Your task to perform on an android device: open chrome privacy settings Image 0: 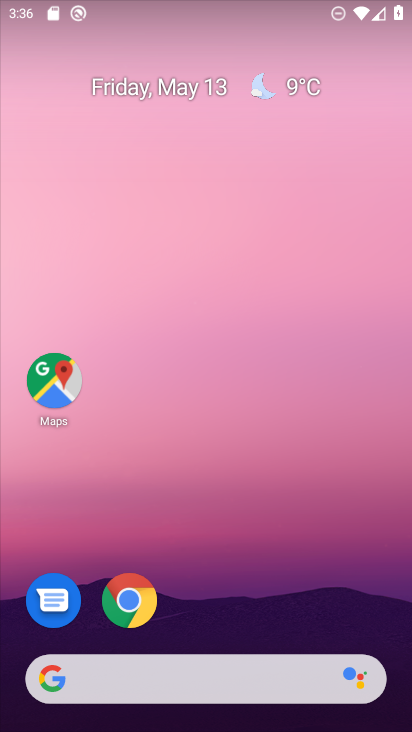
Step 0: drag from (220, 644) to (355, 223)
Your task to perform on an android device: open chrome privacy settings Image 1: 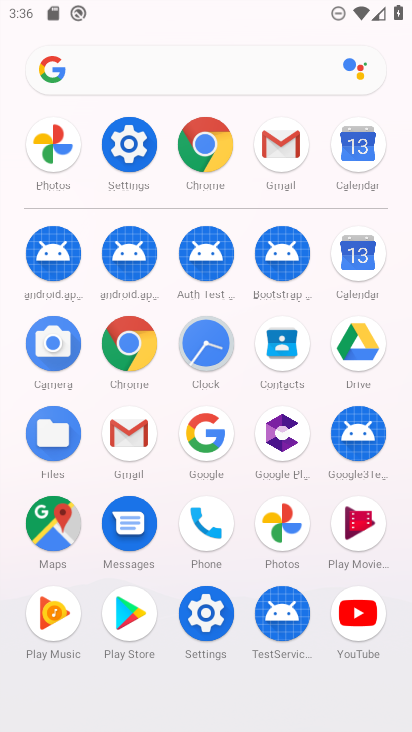
Step 1: drag from (264, 510) to (356, 142)
Your task to perform on an android device: open chrome privacy settings Image 2: 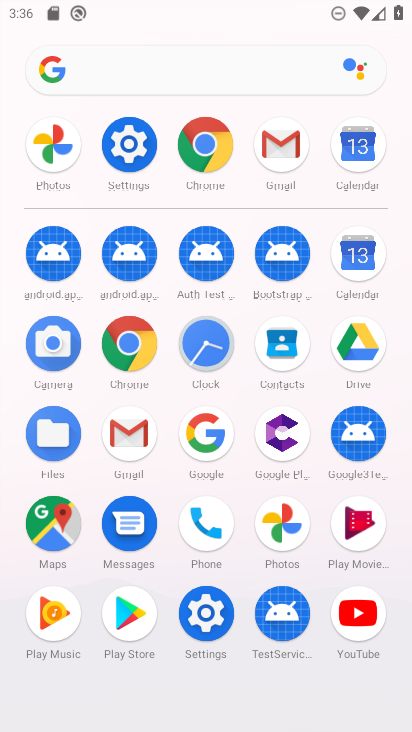
Step 2: click (124, 342)
Your task to perform on an android device: open chrome privacy settings Image 3: 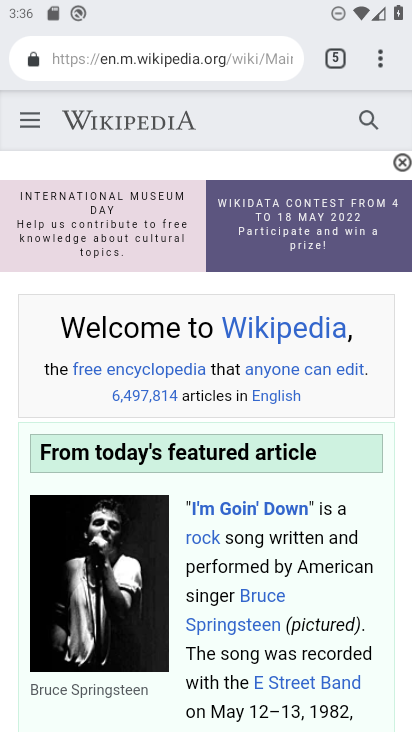
Step 3: drag from (292, 568) to (391, 237)
Your task to perform on an android device: open chrome privacy settings Image 4: 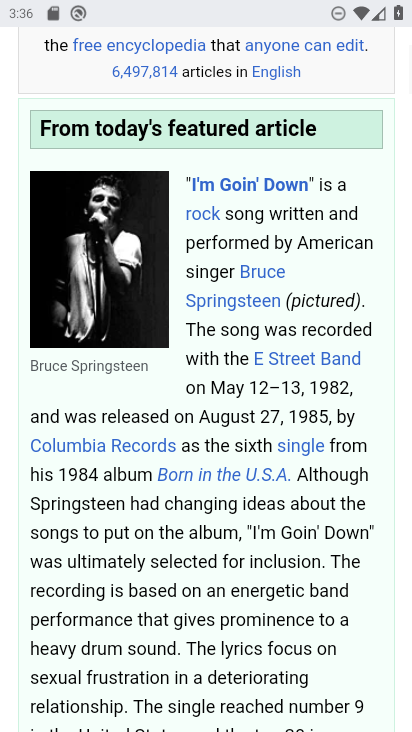
Step 4: drag from (306, 182) to (233, 613)
Your task to perform on an android device: open chrome privacy settings Image 5: 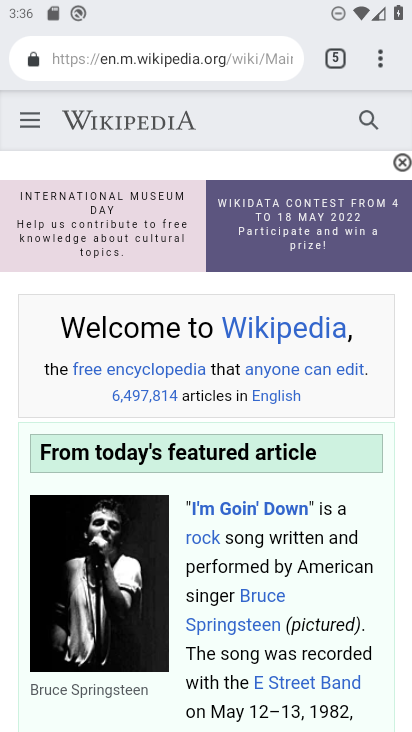
Step 5: drag from (377, 72) to (234, 611)
Your task to perform on an android device: open chrome privacy settings Image 6: 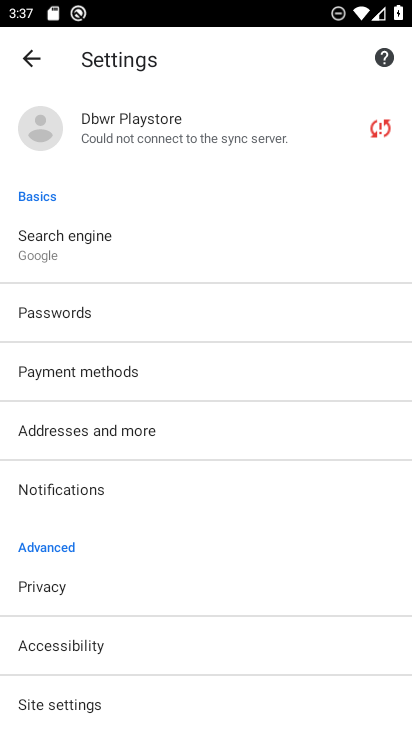
Step 6: click (122, 589)
Your task to perform on an android device: open chrome privacy settings Image 7: 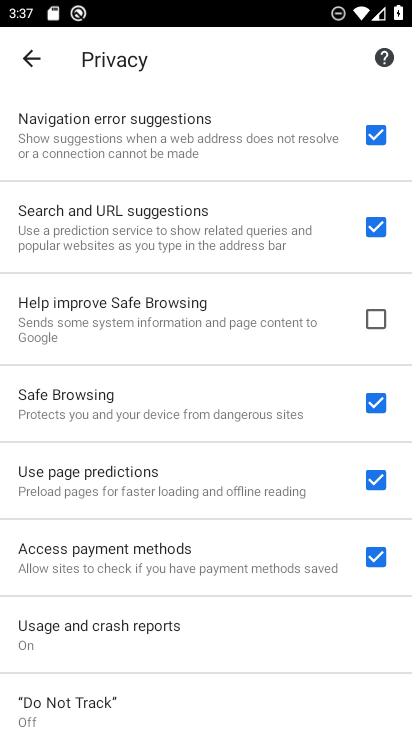
Step 7: task complete